Your task to perform on an android device: turn on the 24-hour format for clock Image 0: 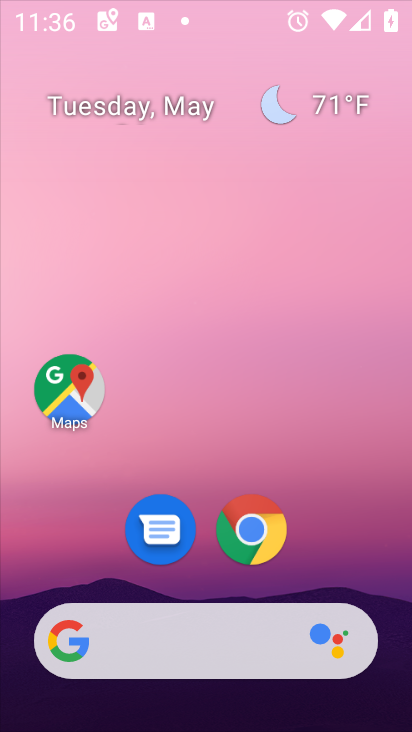
Step 0: drag from (230, 354) to (233, 121)
Your task to perform on an android device: turn on the 24-hour format for clock Image 1: 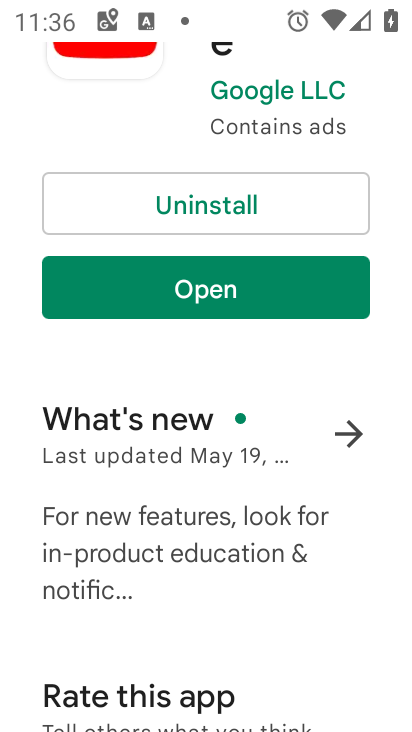
Step 1: press home button
Your task to perform on an android device: turn on the 24-hour format for clock Image 2: 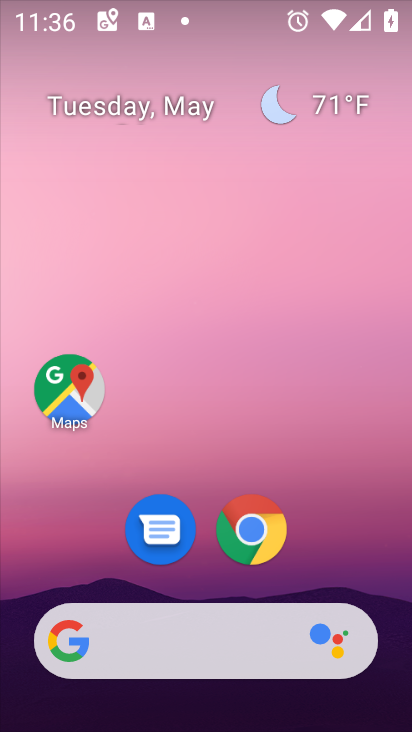
Step 2: drag from (166, 656) to (392, 16)
Your task to perform on an android device: turn on the 24-hour format for clock Image 3: 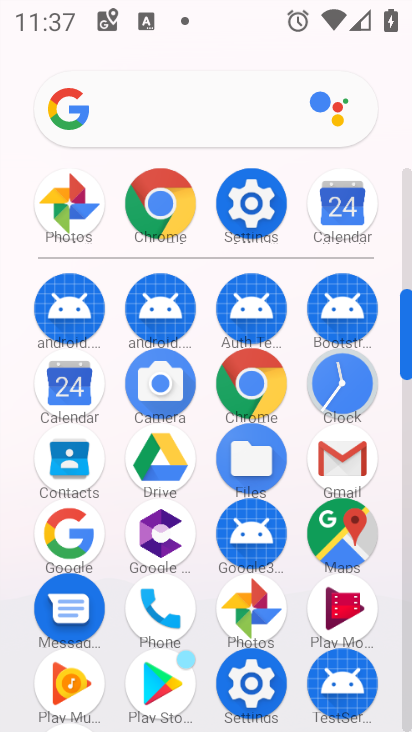
Step 3: click (340, 390)
Your task to perform on an android device: turn on the 24-hour format for clock Image 4: 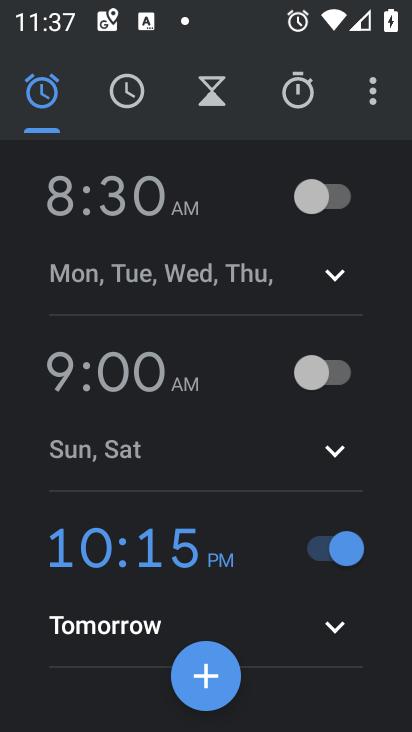
Step 4: click (361, 86)
Your task to perform on an android device: turn on the 24-hour format for clock Image 5: 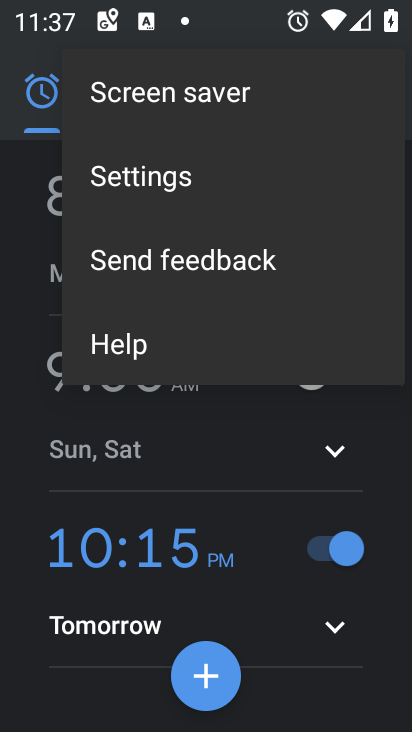
Step 5: click (162, 175)
Your task to perform on an android device: turn on the 24-hour format for clock Image 6: 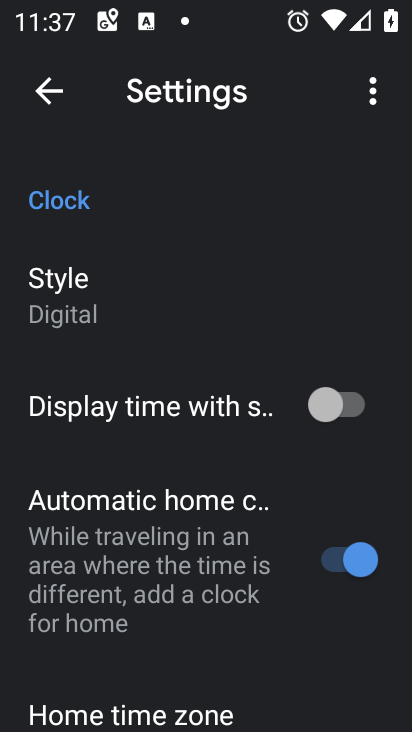
Step 6: drag from (224, 557) to (268, 175)
Your task to perform on an android device: turn on the 24-hour format for clock Image 7: 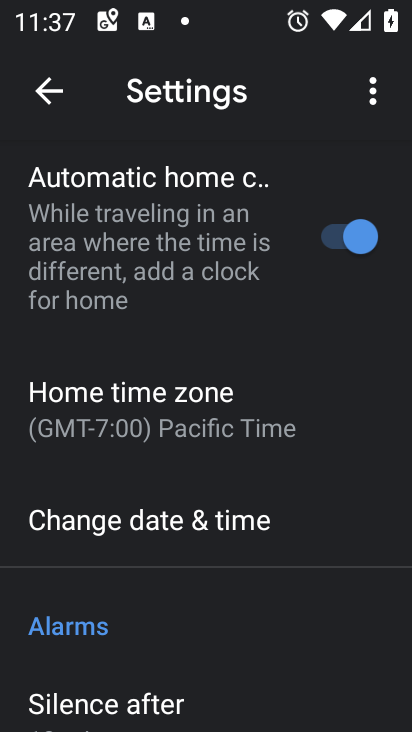
Step 7: click (236, 515)
Your task to perform on an android device: turn on the 24-hour format for clock Image 8: 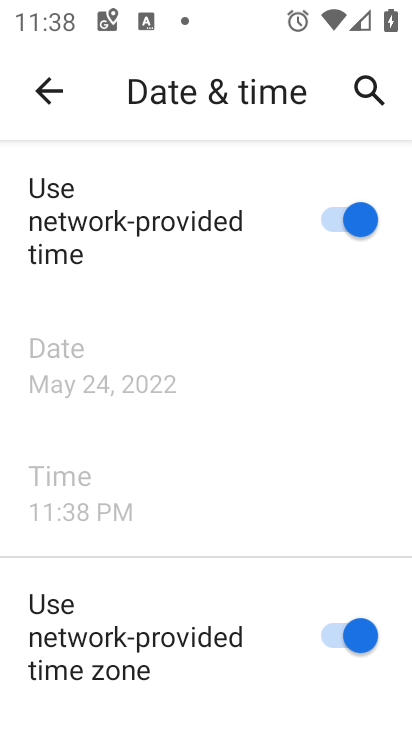
Step 8: task complete